Your task to perform on an android device: install app "Yahoo Mail" Image 0: 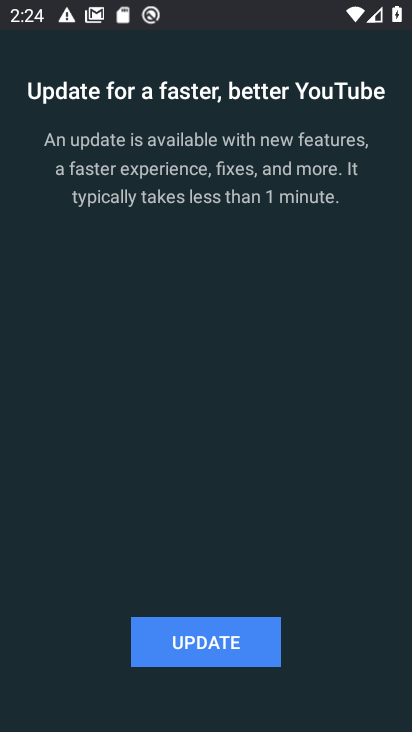
Step 0: press back button
Your task to perform on an android device: install app "Yahoo Mail" Image 1: 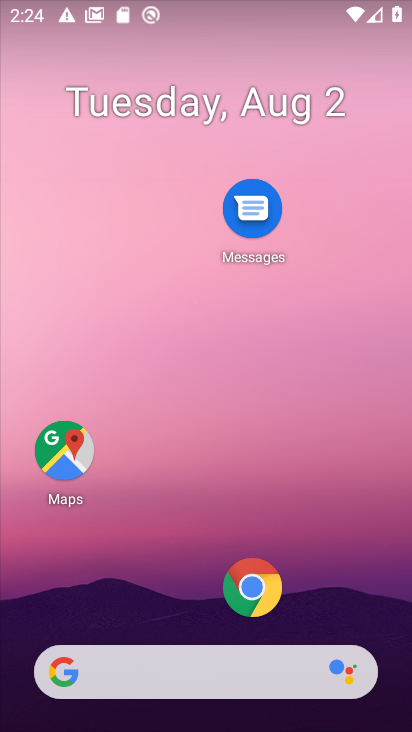
Step 1: drag from (169, 605) to (197, 188)
Your task to perform on an android device: install app "Yahoo Mail" Image 2: 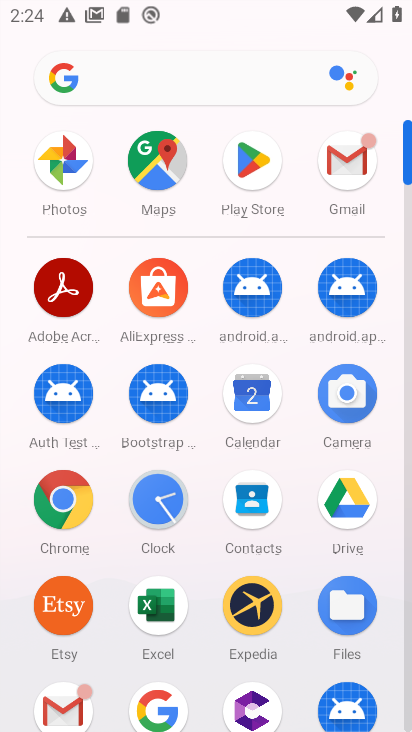
Step 2: click (253, 164)
Your task to perform on an android device: install app "Yahoo Mail" Image 3: 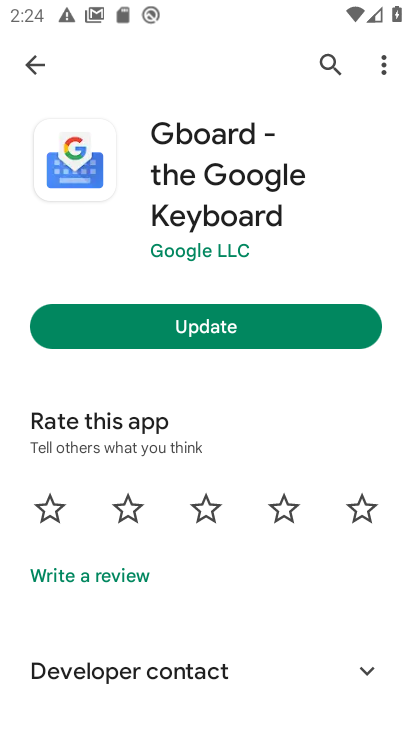
Step 3: click (328, 63)
Your task to perform on an android device: install app "Yahoo Mail" Image 4: 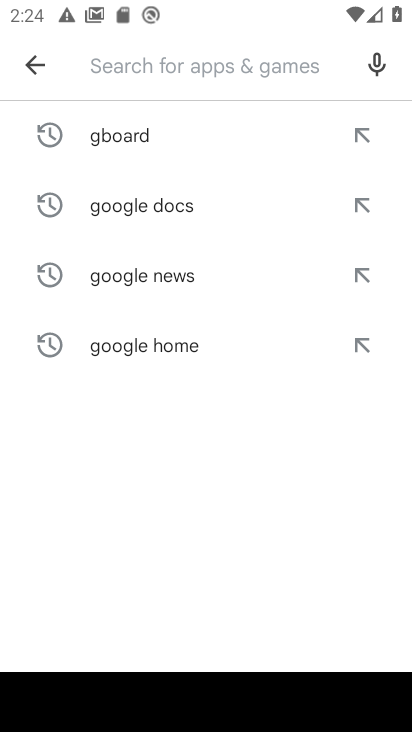
Step 4: type "Yahoo Mail"
Your task to perform on an android device: install app "Yahoo Mail" Image 5: 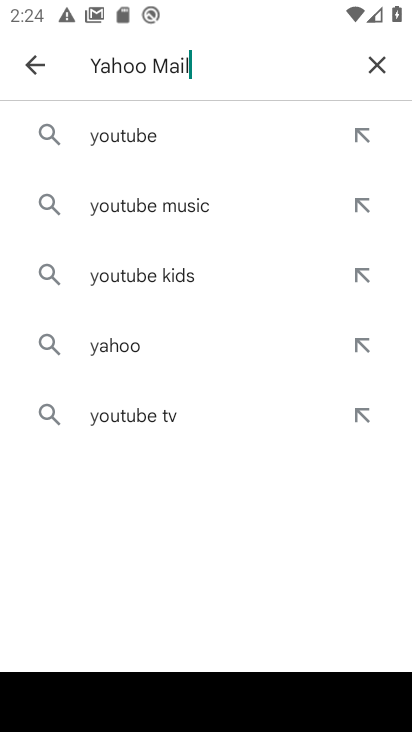
Step 5: type ""
Your task to perform on an android device: install app "Yahoo Mail" Image 6: 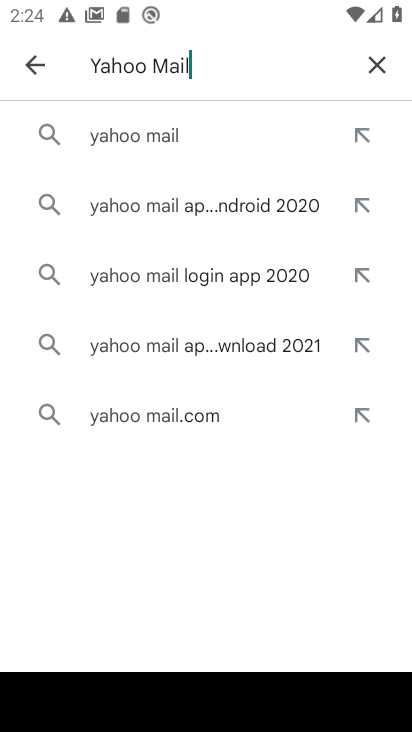
Step 6: click (174, 139)
Your task to perform on an android device: install app "Yahoo Mail" Image 7: 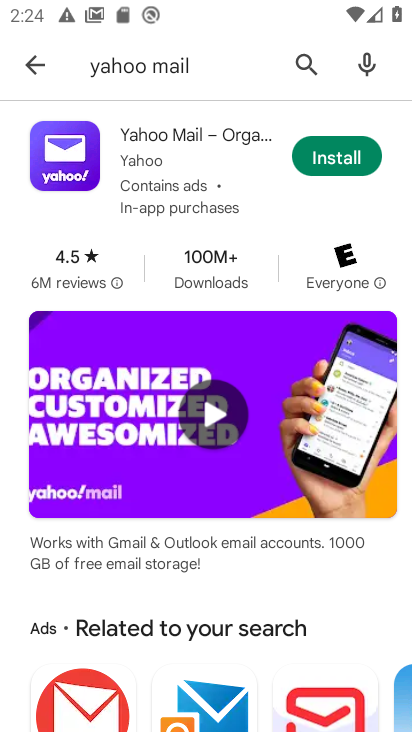
Step 7: click (311, 168)
Your task to perform on an android device: install app "Yahoo Mail" Image 8: 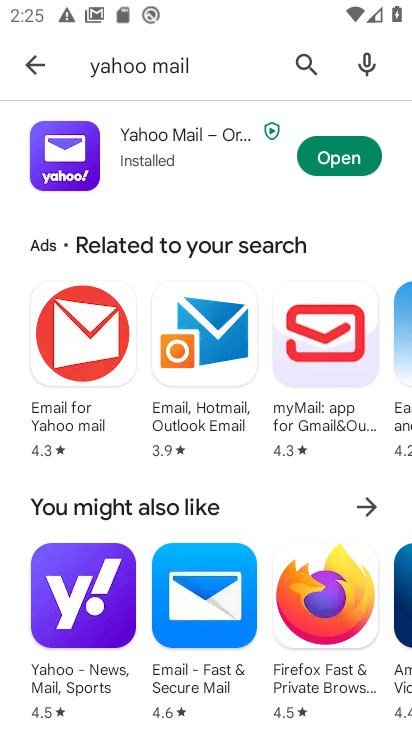
Step 8: click (180, 142)
Your task to perform on an android device: install app "Yahoo Mail" Image 9: 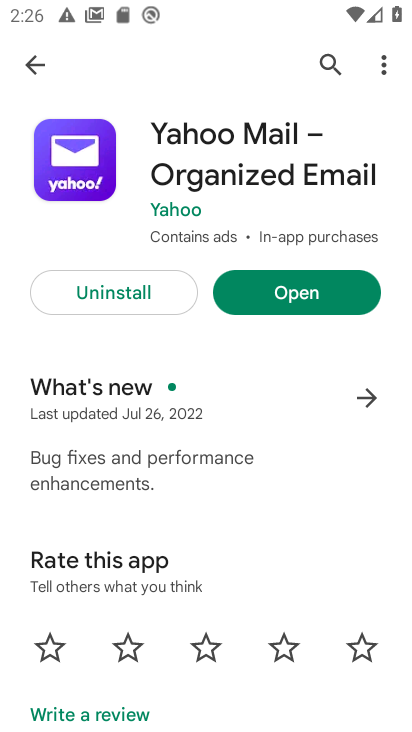
Step 9: task complete